Your task to perform on an android device: Go to network settings Image 0: 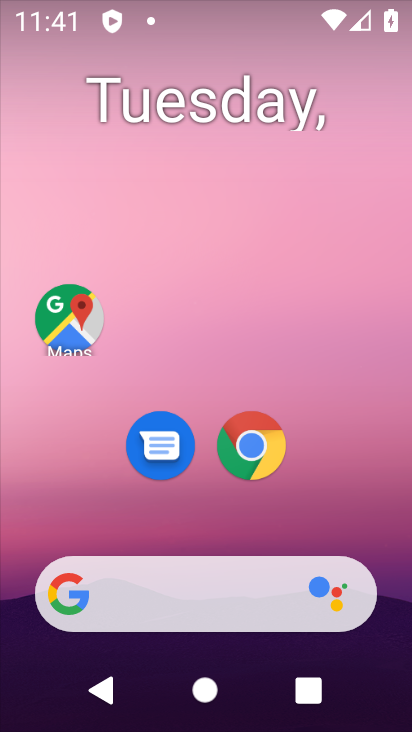
Step 0: drag from (211, 527) to (211, 147)
Your task to perform on an android device: Go to network settings Image 1: 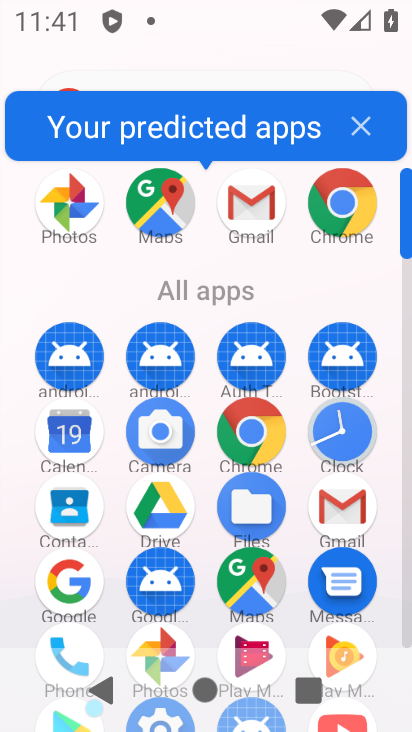
Step 1: drag from (195, 483) to (188, 232)
Your task to perform on an android device: Go to network settings Image 2: 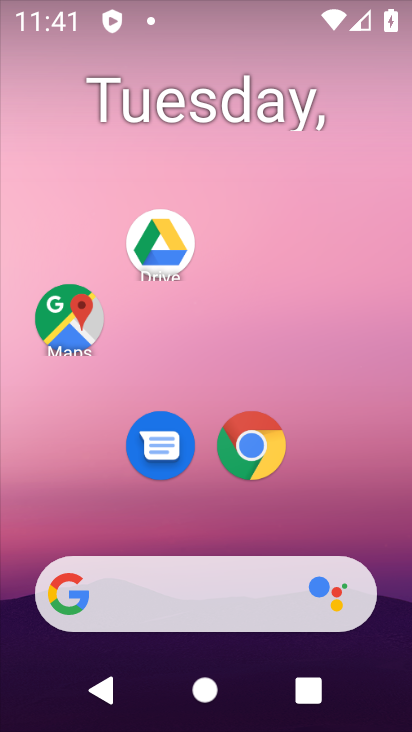
Step 2: drag from (210, 480) to (212, 188)
Your task to perform on an android device: Go to network settings Image 3: 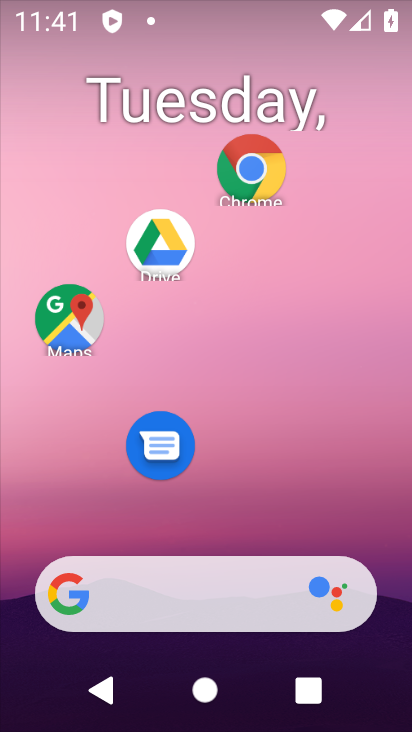
Step 3: drag from (209, 532) to (217, 170)
Your task to perform on an android device: Go to network settings Image 4: 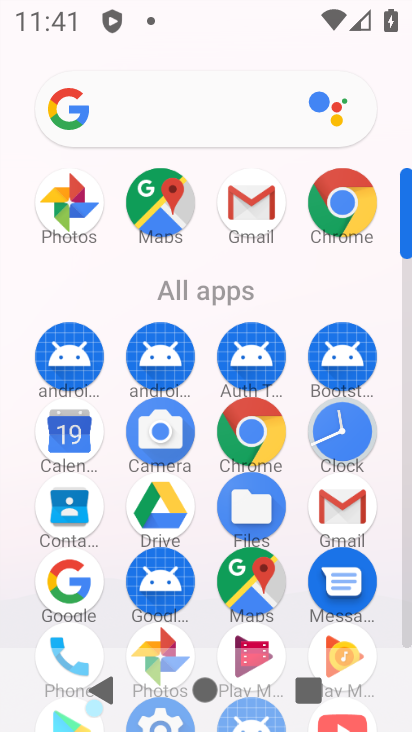
Step 4: drag from (196, 613) to (205, 265)
Your task to perform on an android device: Go to network settings Image 5: 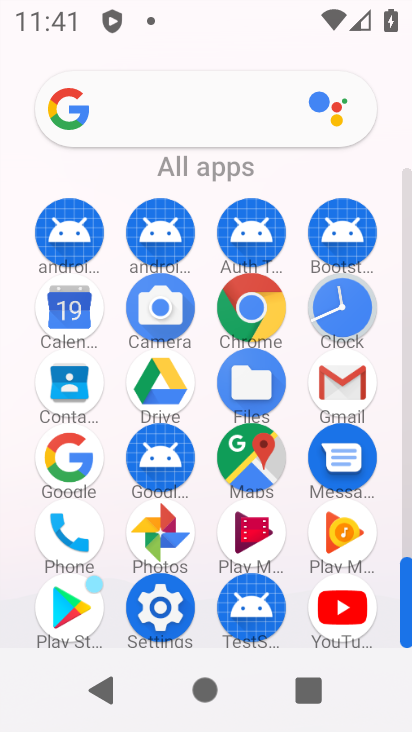
Step 5: click (156, 590)
Your task to perform on an android device: Go to network settings Image 6: 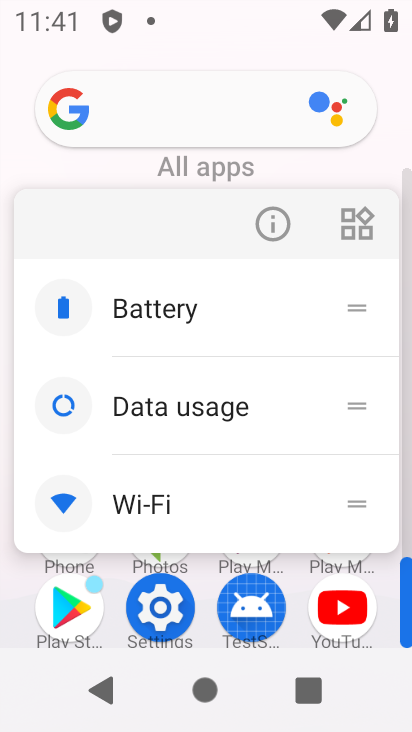
Step 6: click (150, 611)
Your task to perform on an android device: Go to network settings Image 7: 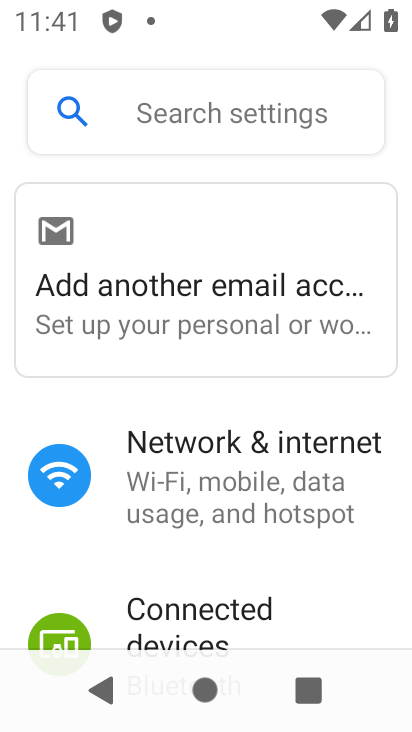
Step 7: click (204, 450)
Your task to perform on an android device: Go to network settings Image 8: 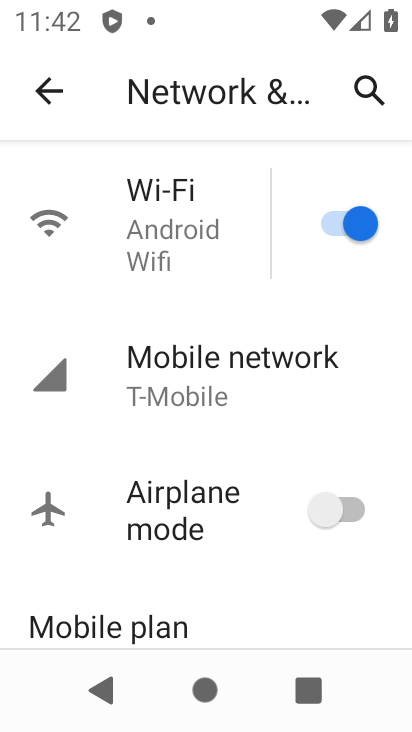
Step 8: click (245, 370)
Your task to perform on an android device: Go to network settings Image 9: 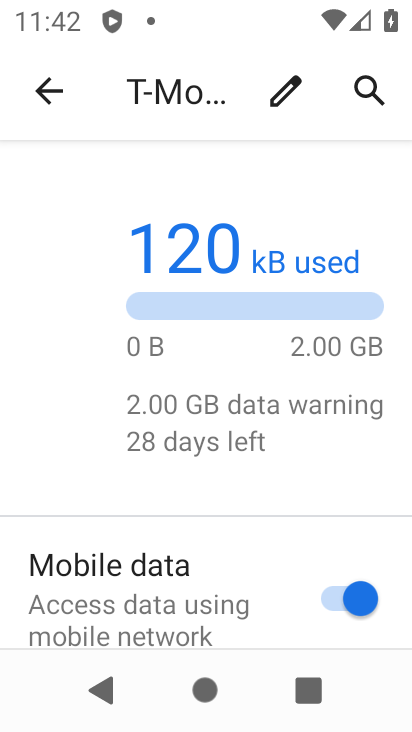
Step 9: task complete